Your task to perform on an android device: Play the last video I watched on Youtube Image 0: 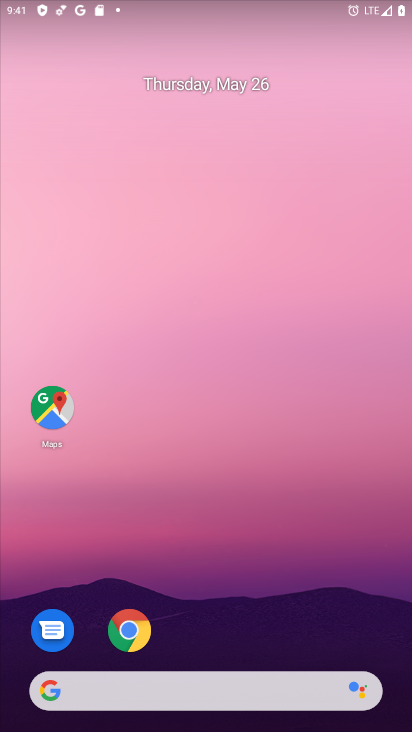
Step 0: drag from (202, 653) to (199, 189)
Your task to perform on an android device: Play the last video I watched on Youtube Image 1: 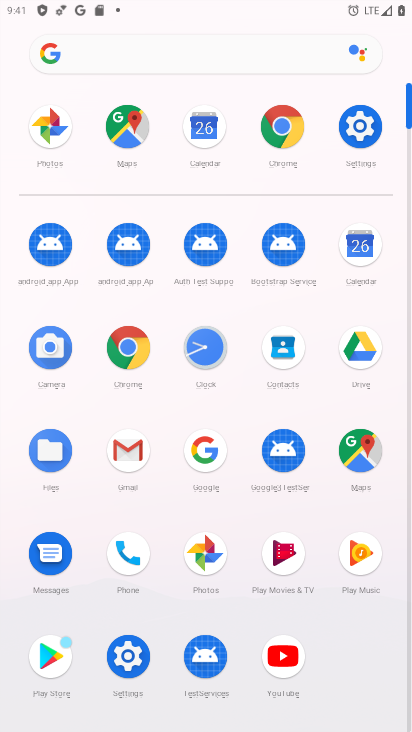
Step 1: click (282, 631)
Your task to perform on an android device: Play the last video I watched on Youtube Image 2: 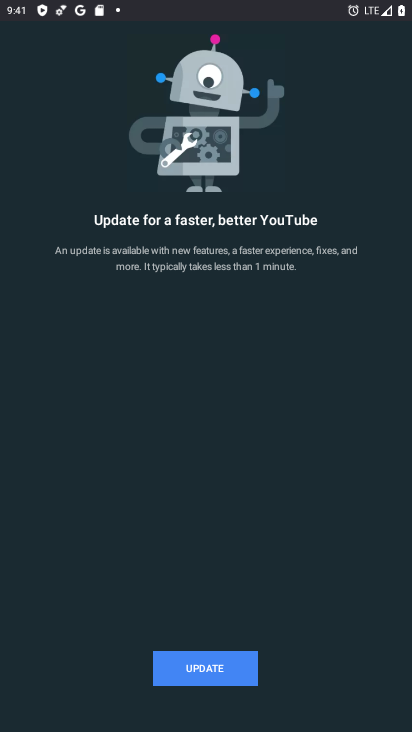
Step 2: click (193, 659)
Your task to perform on an android device: Play the last video I watched on Youtube Image 3: 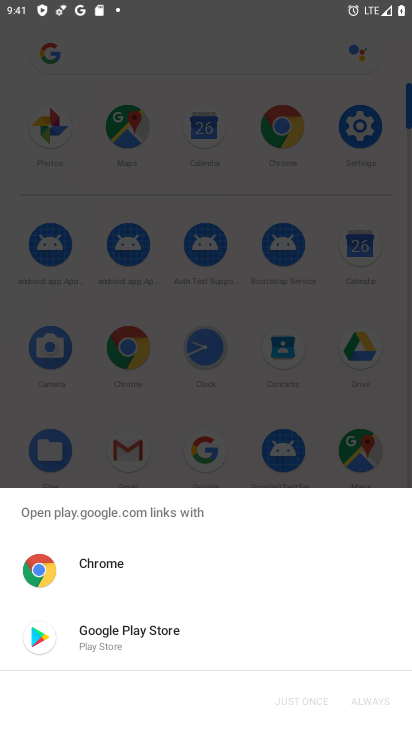
Step 3: click (209, 642)
Your task to perform on an android device: Play the last video I watched on Youtube Image 4: 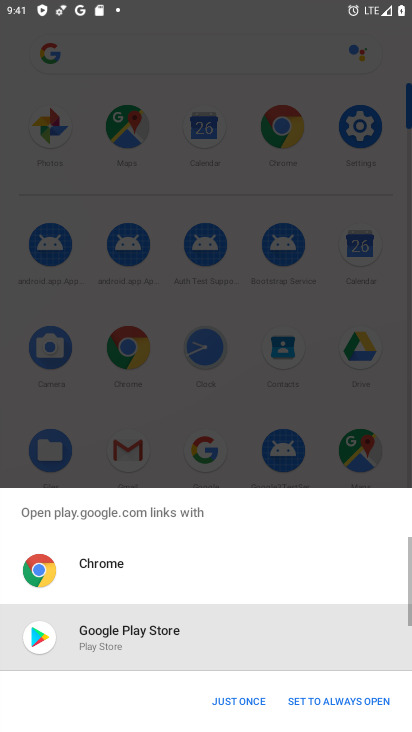
Step 4: click (220, 696)
Your task to perform on an android device: Play the last video I watched on Youtube Image 5: 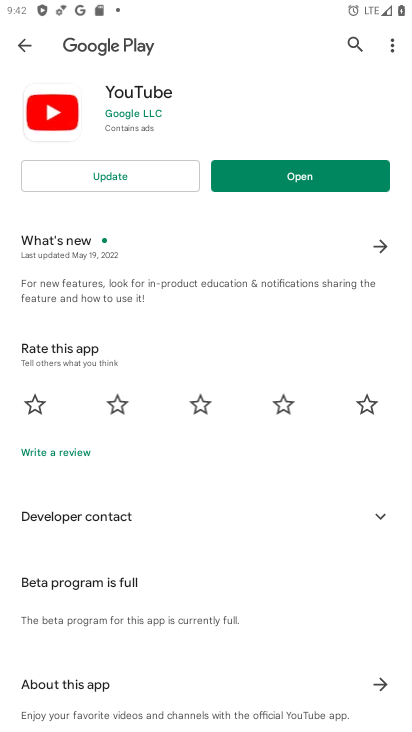
Step 5: click (127, 175)
Your task to perform on an android device: Play the last video I watched on Youtube Image 6: 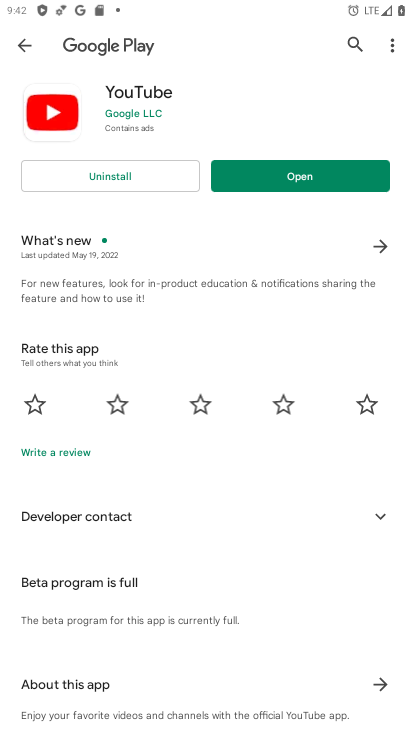
Step 6: click (297, 168)
Your task to perform on an android device: Play the last video I watched on Youtube Image 7: 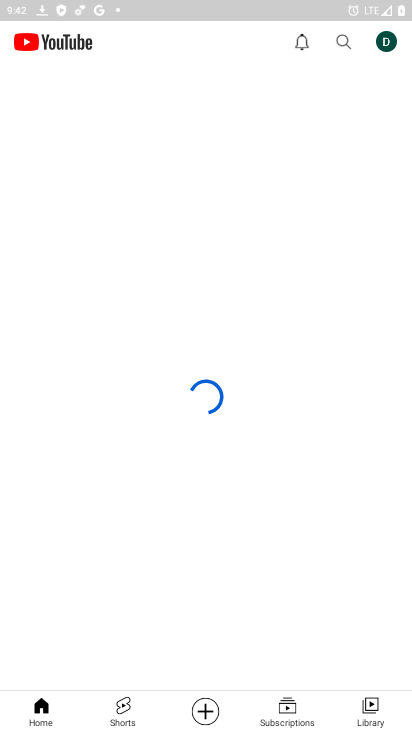
Step 7: click (367, 706)
Your task to perform on an android device: Play the last video I watched on Youtube Image 8: 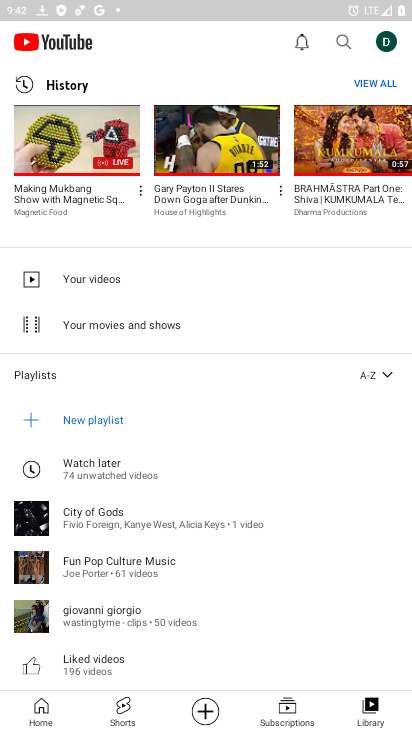
Step 8: click (58, 187)
Your task to perform on an android device: Play the last video I watched on Youtube Image 9: 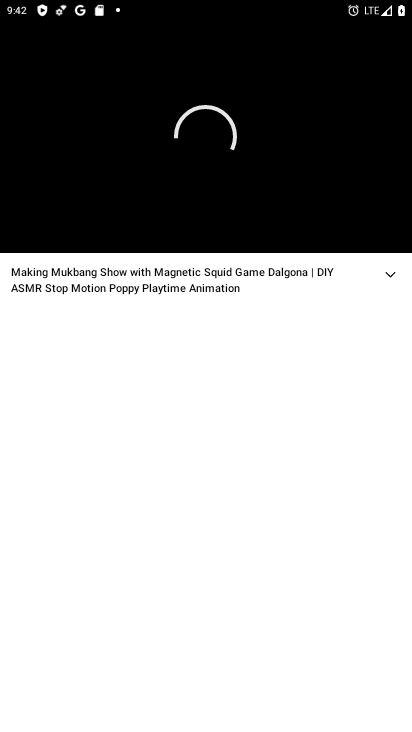
Step 9: task complete